Your task to perform on an android device: Open Reddit.com Image 0: 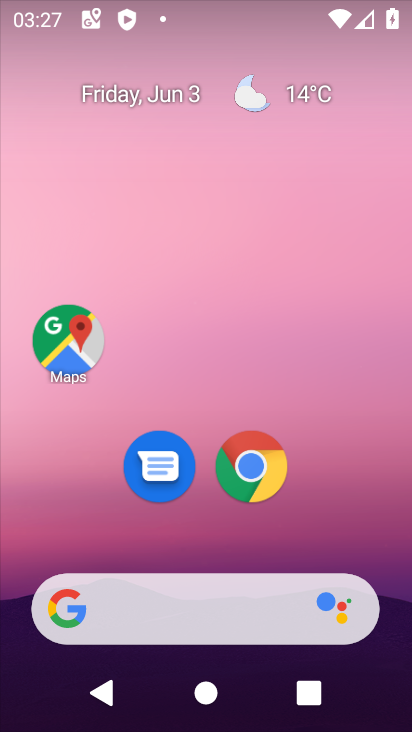
Step 0: press home button
Your task to perform on an android device: Open Reddit.com Image 1: 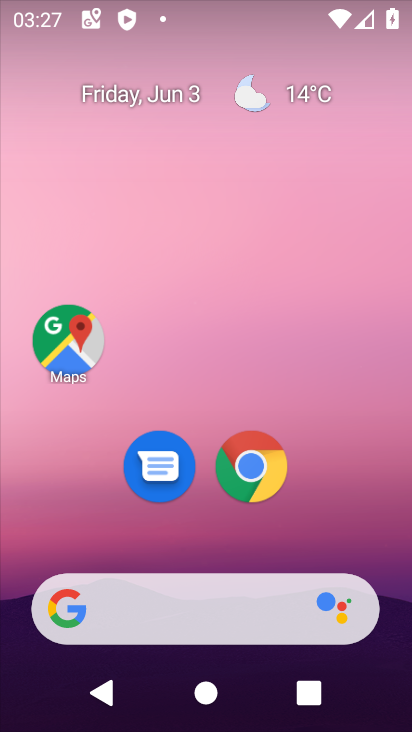
Step 1: click (253, 459)
Your task to perform on an android device: Open Reddit.com Image 2: 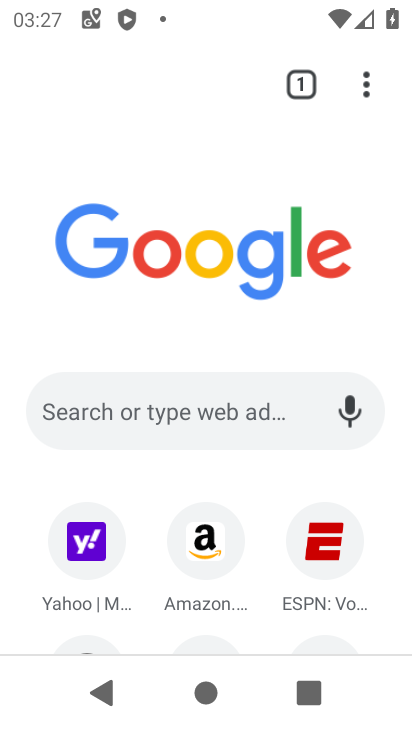
Step 2: click (215, 409)
Your task to perform on an android device: Open Reddit.com Image 3: 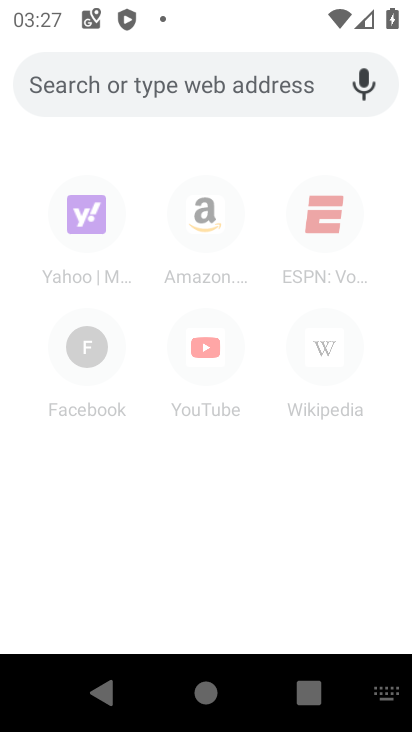
Step 3: type "reddit"
Your task to perform on an android device: Open Reddit.com Image 4: 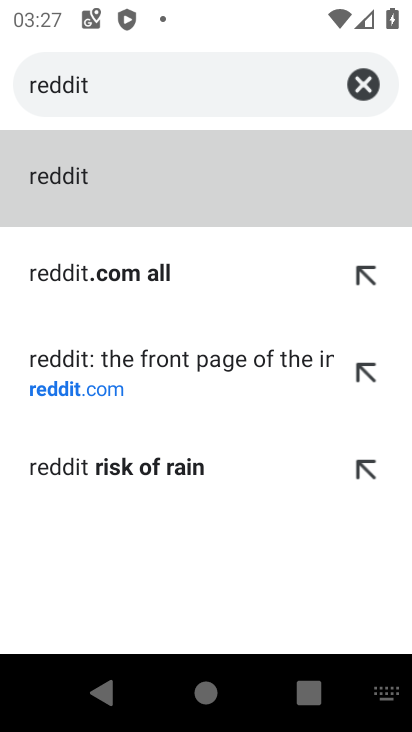
Step 4: click (146, 363)
Your task to perform on an android device: Open Reddit.com Image 5: 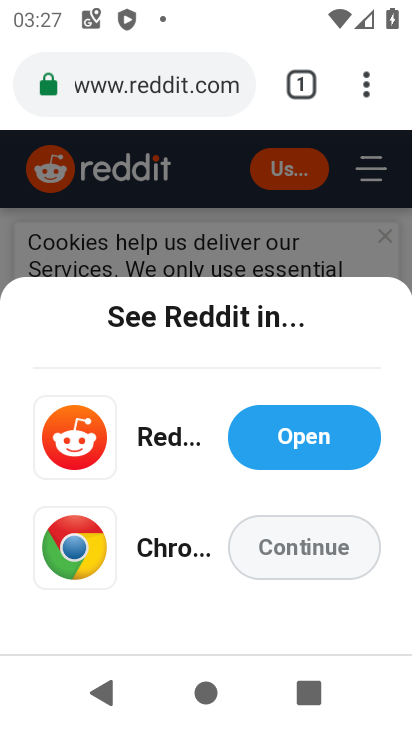
Step 5: click (298, 542)
Your task to perform on an android device: Open Reddit.com Image 6: 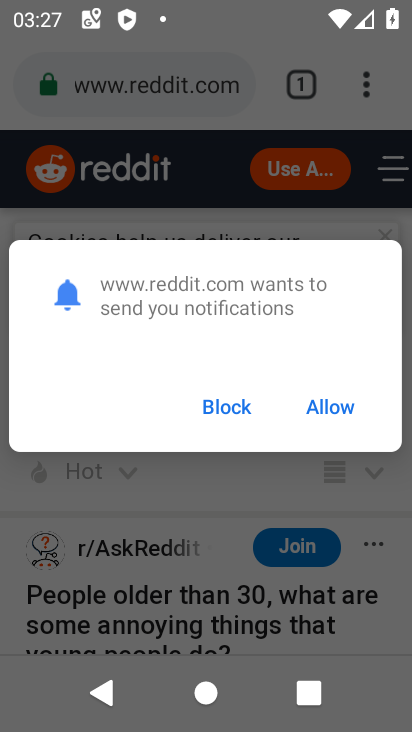
Step 6: click (337, 404)
Your task to perform on an android device: Open Reddit.com Image 7: 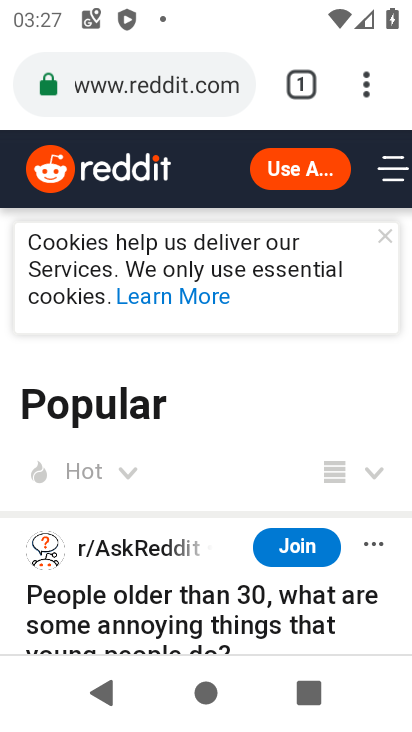
Step 7: task complete